Your task to perform on an android device: Add bose soundsport free to the cart on ebay.com Image 0: 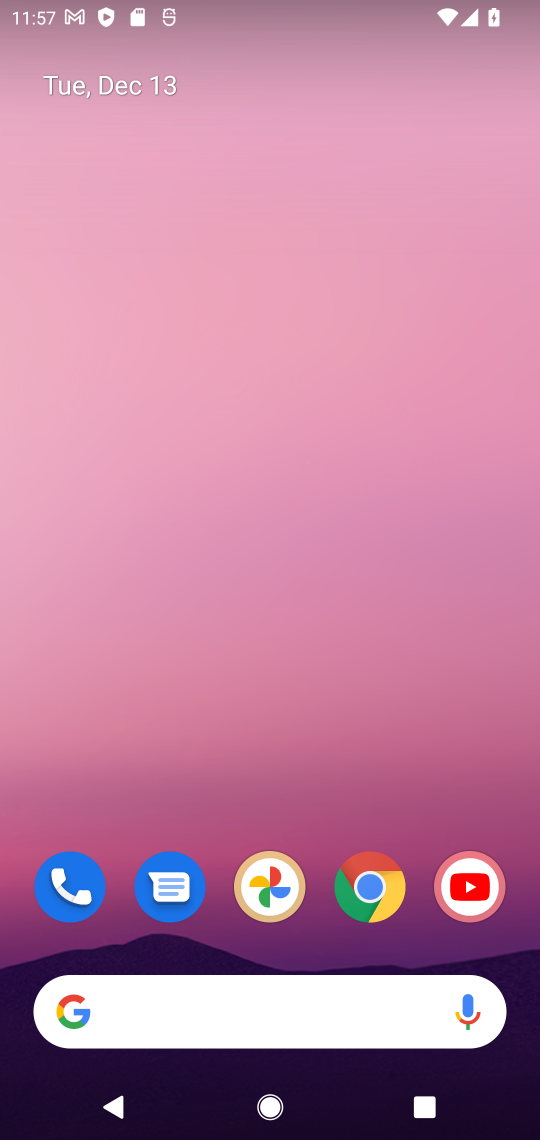
Step 0: drag from (332, 923) to (240, 94)
Your task to perform on an android device: Add bose soundsport free to the cart on ebay.com Image 1: 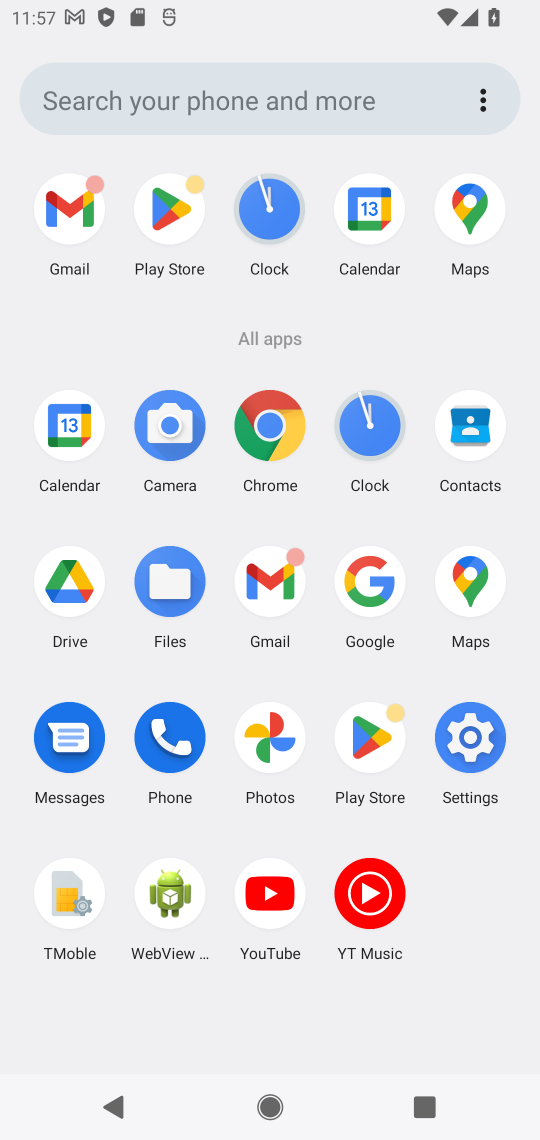
Step 1: click (375, 583)
Your task to perform on an android device: Add bose soundsport free to the cart on ebay.com Image 2: 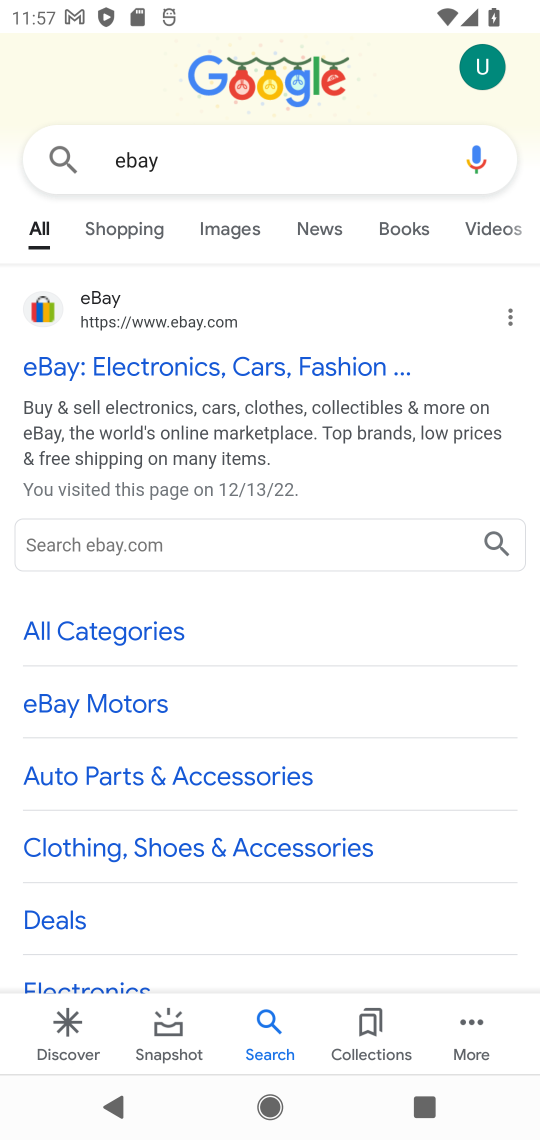
Step 2: click (150, 158)
Your task to perform on an android device: Add bose soundsport free to the cart on ebay.com Image 3: 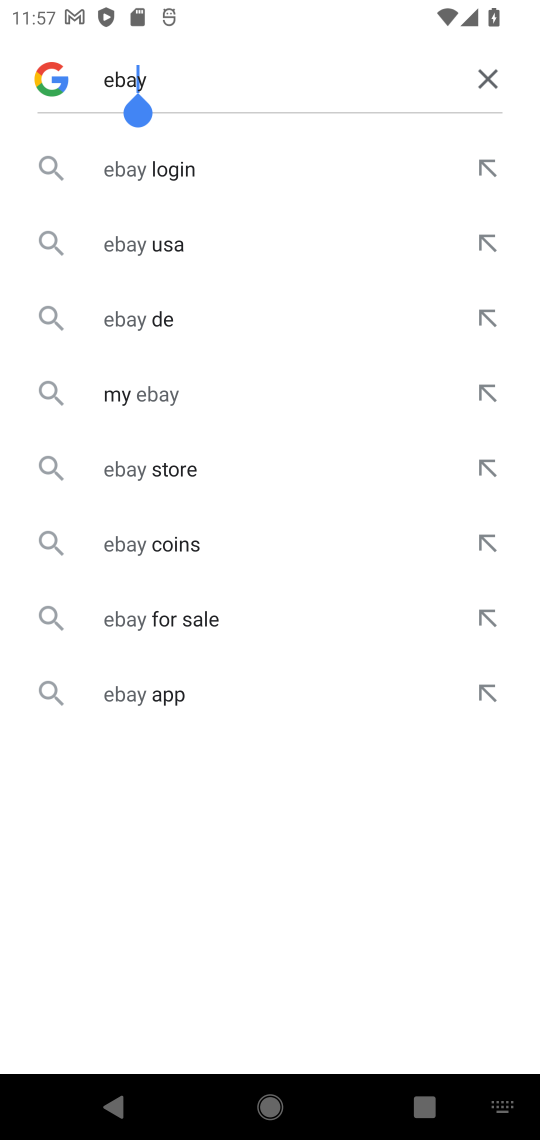
Step 3: click (490, 79)
Your task to perform on an android device: Add bose soundsport free to the cart on ebay.com Image 4: 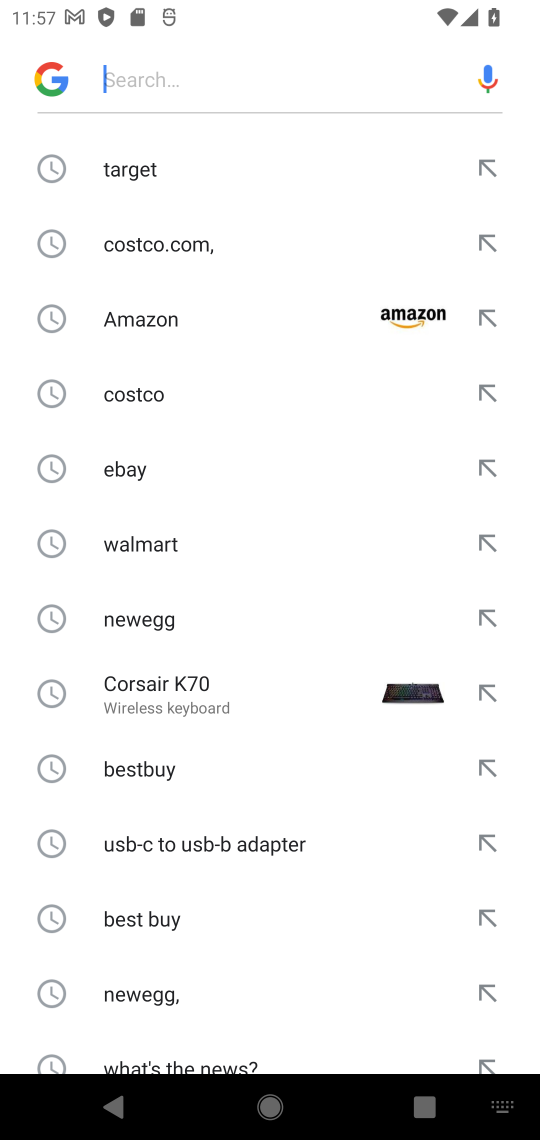
Step 4: click (132, 467)
Your task to perform on an android device: Add bose soundsport free to the cart on ebay.com Image 5: 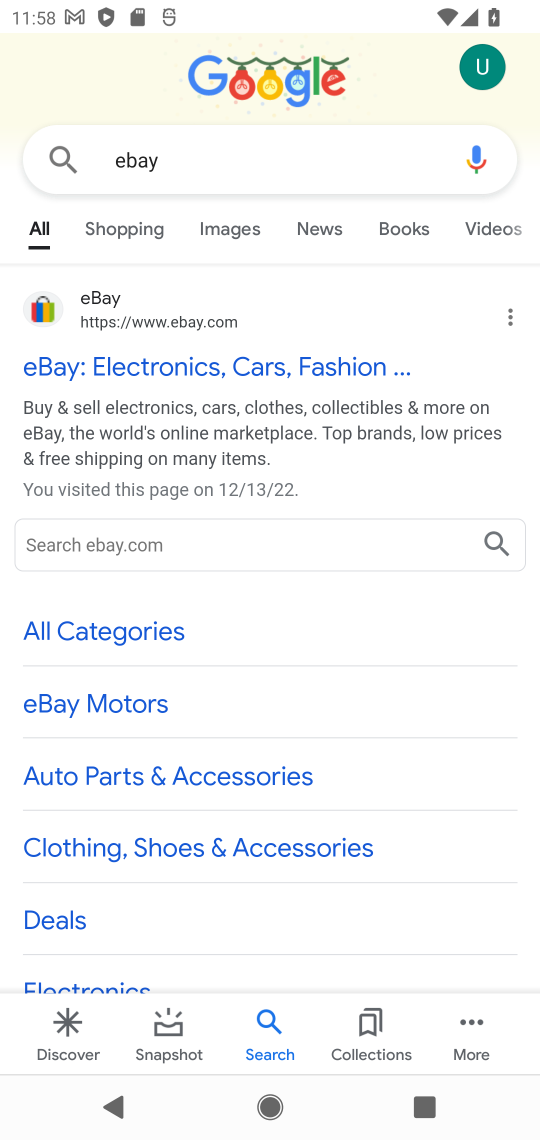
Step 5: click (85, 363)
Your task to perform on an android device: Add bose soundsport free to the cart on ebay.com Image 6: 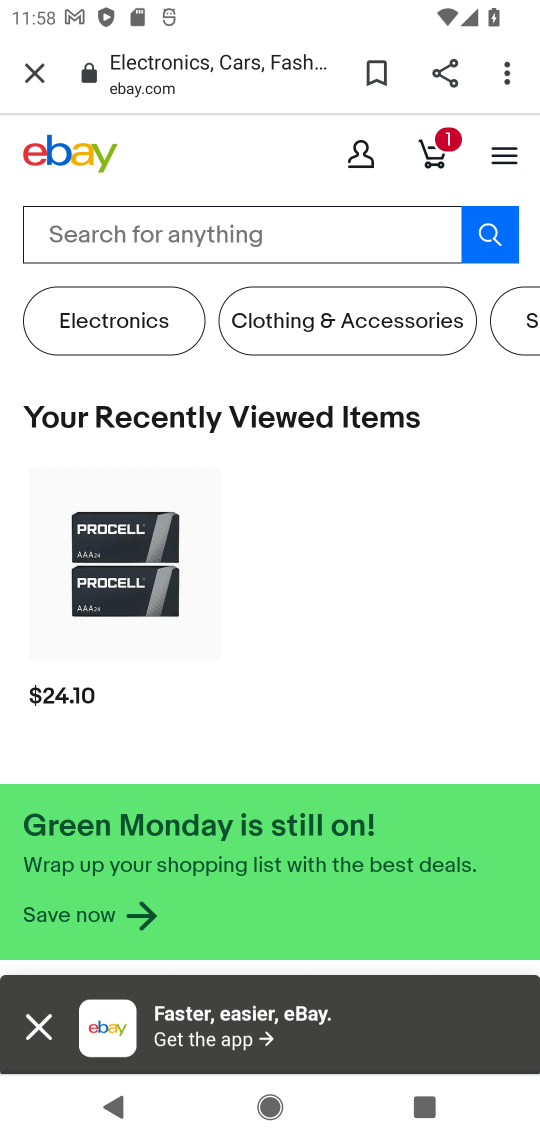
Step 6: click (69, 239)
Your task to perform on an android device: Add bose soundsport free to the cart on ebay.com Image 7: 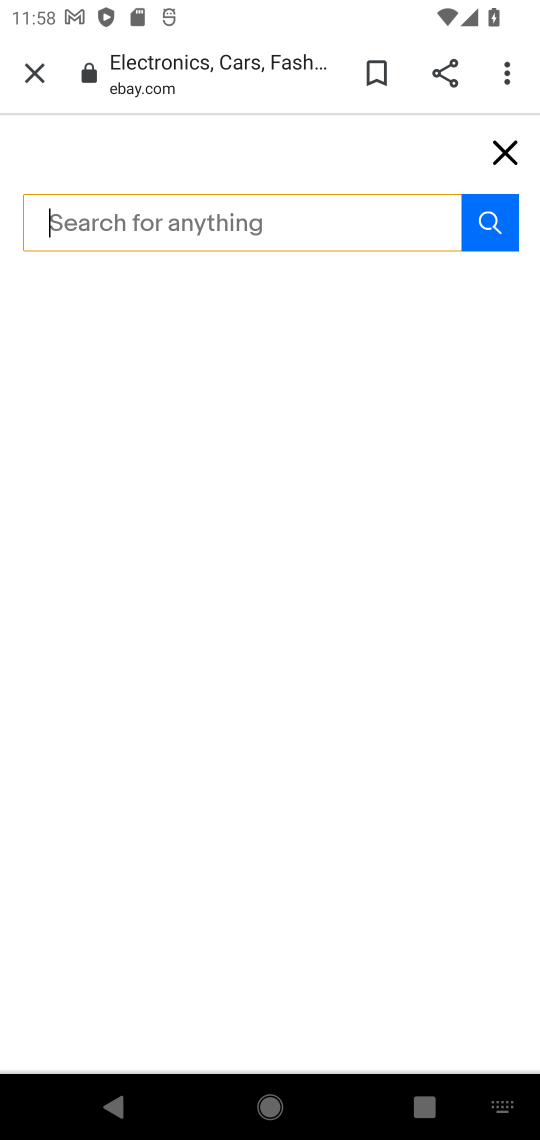
Step 7: type "bose soundsport free"
Your task to perform on an android device: Add bose soundsport free to the cart on ebay.com Image 8: 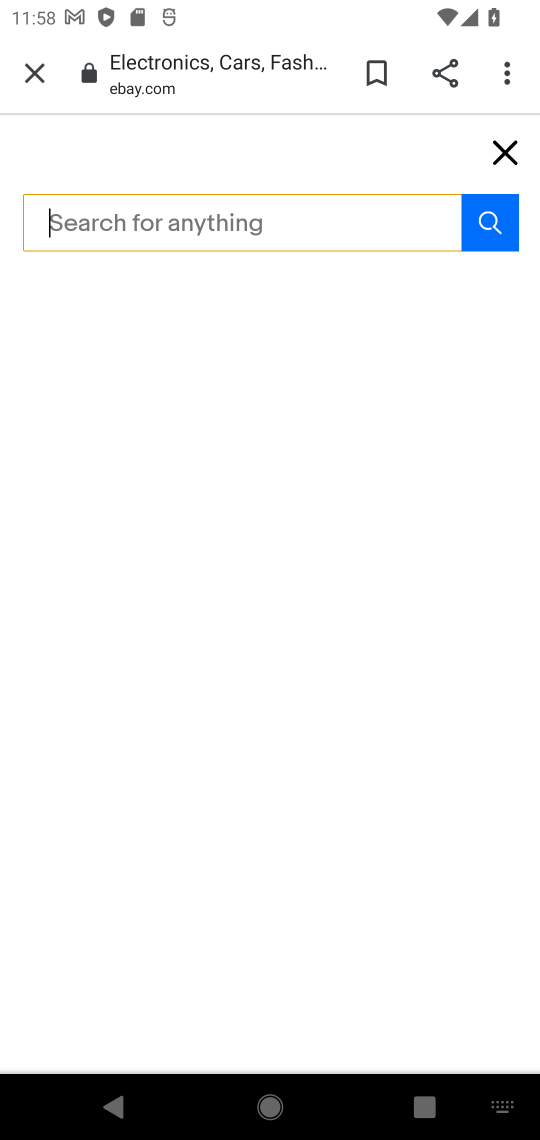
Step 8: click (481, 217)
Your task to perform on an android device: Add bose soundsport free to the cart on ebay.com Image 9: 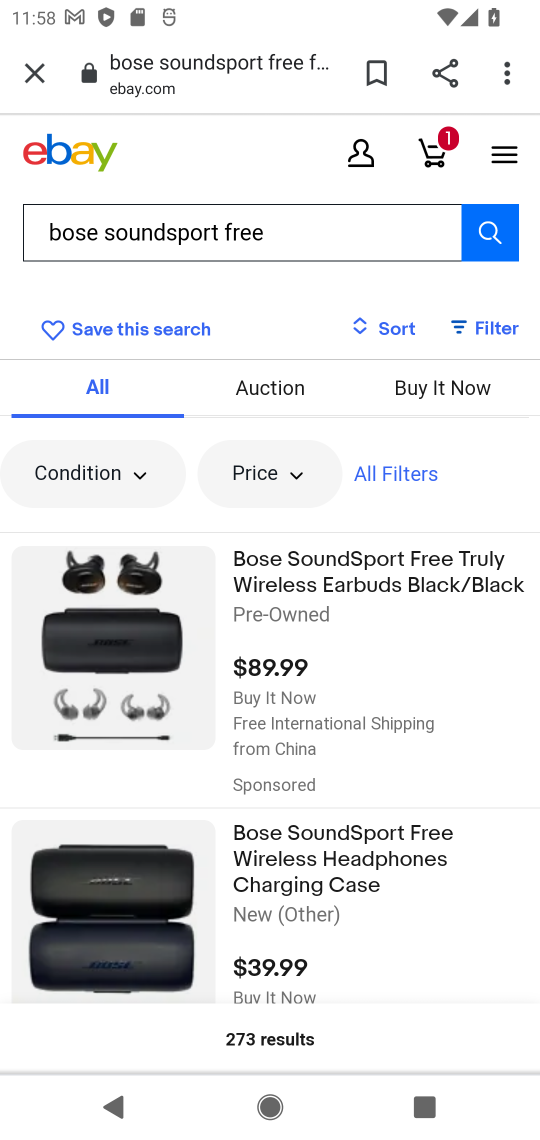
Step 9: click (292, 580)
Your task to perform on an android device: Add bose soundsport free to the cart on ebay.com Image 10: 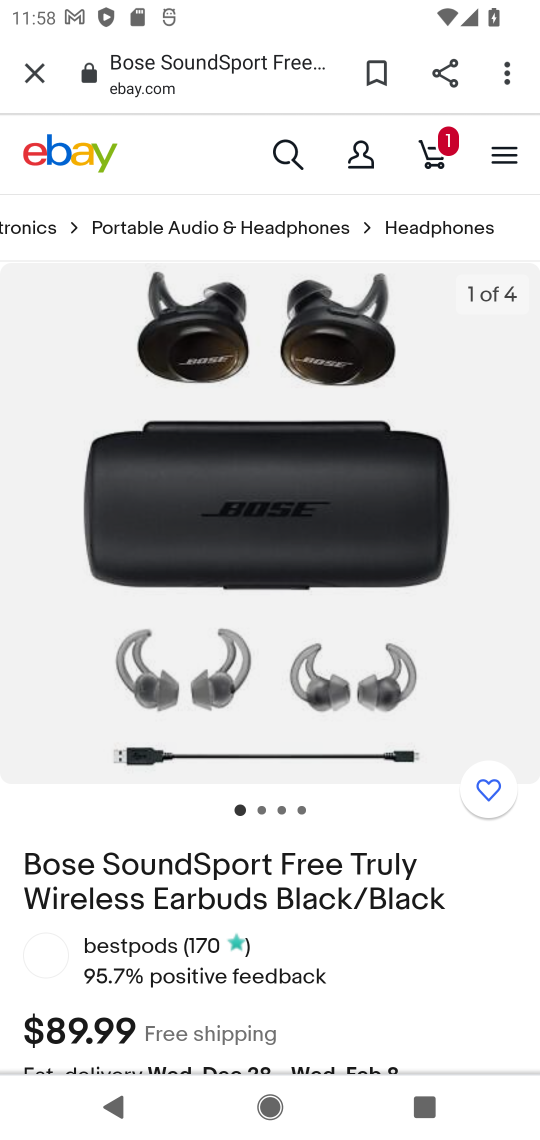
Step 10: drag from (432, 856) to (435, 474)
Your task to perform on an android device: Add bose soundsport free to the cart on ebay.com Image 11: 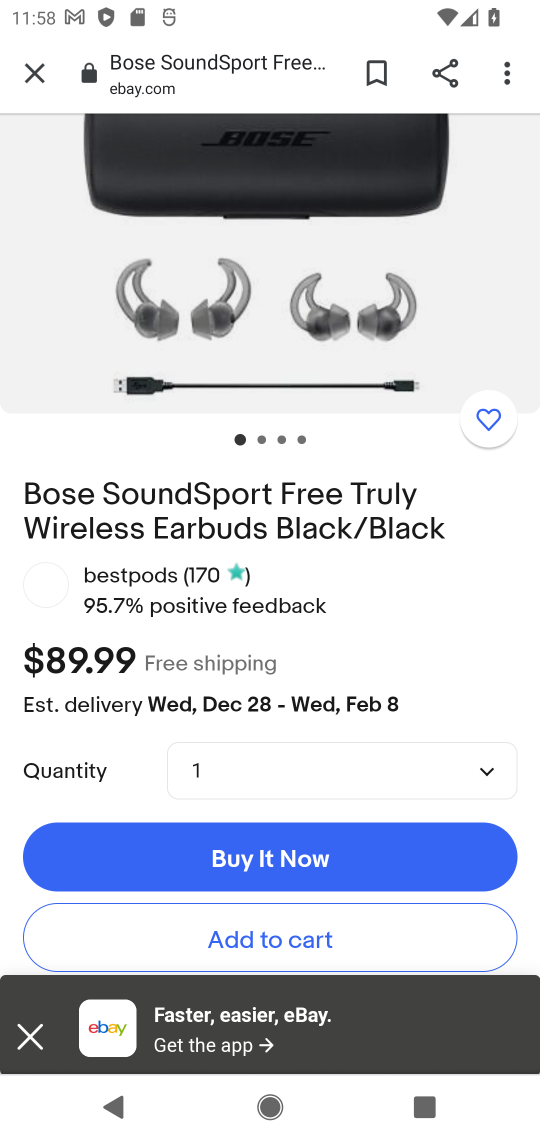
Step 11: drag from (524, 684) to (524, 433)
Your task to perform on an android device: Add bose soundsport free to the cart on ebay.com Image 12: 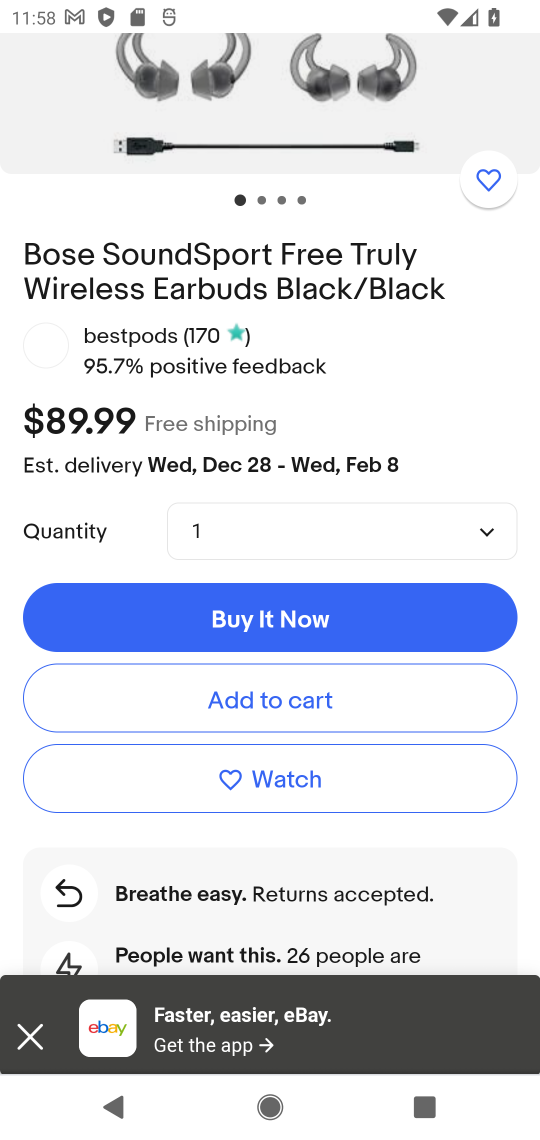
Step 12: click (273, 698)
Your task to perform on an android device: Add bose soundsport free to the cart on ebay.com Image 13: 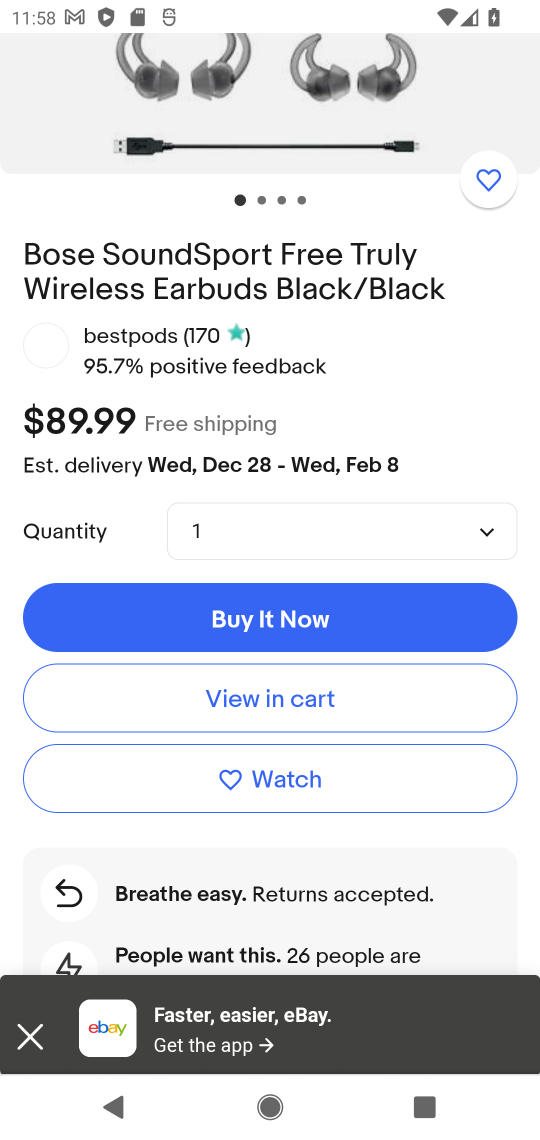
Step 13: click (271, 696)
Your task to perform on an android device: Add bose soundsport free to the cart on ebay.com Image 14: 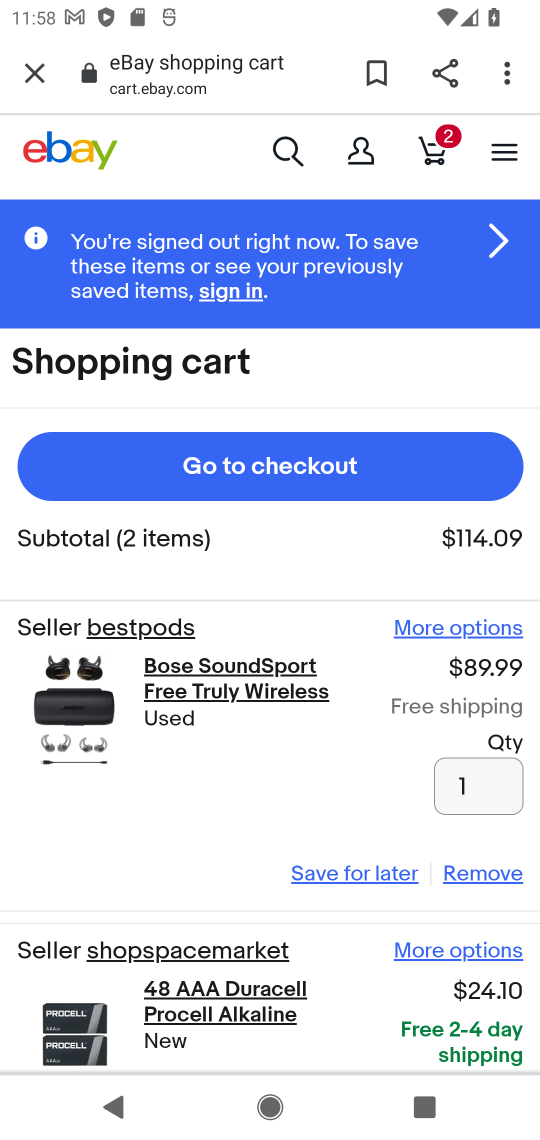
Step 14: task complete